Your task to perform on an android device: View the shopping cart on amazon. Add usb-a to usb-b to the cart on amazon, then select checkout. Image 0: 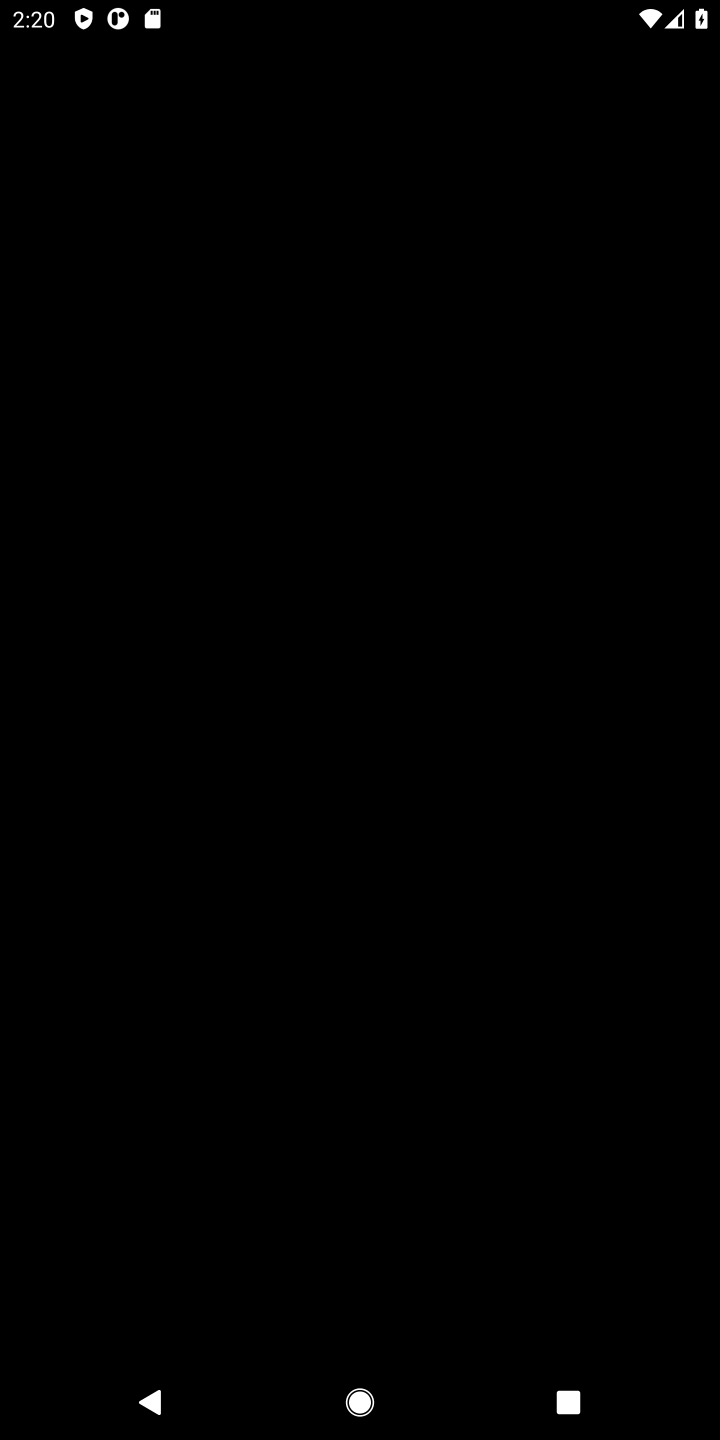
Step 0: press home button
Your task to perform on an android device: View the shopping cart on amazon. Add usb-a to usb-b to the cart on amazon, then select checkout. Image 1: 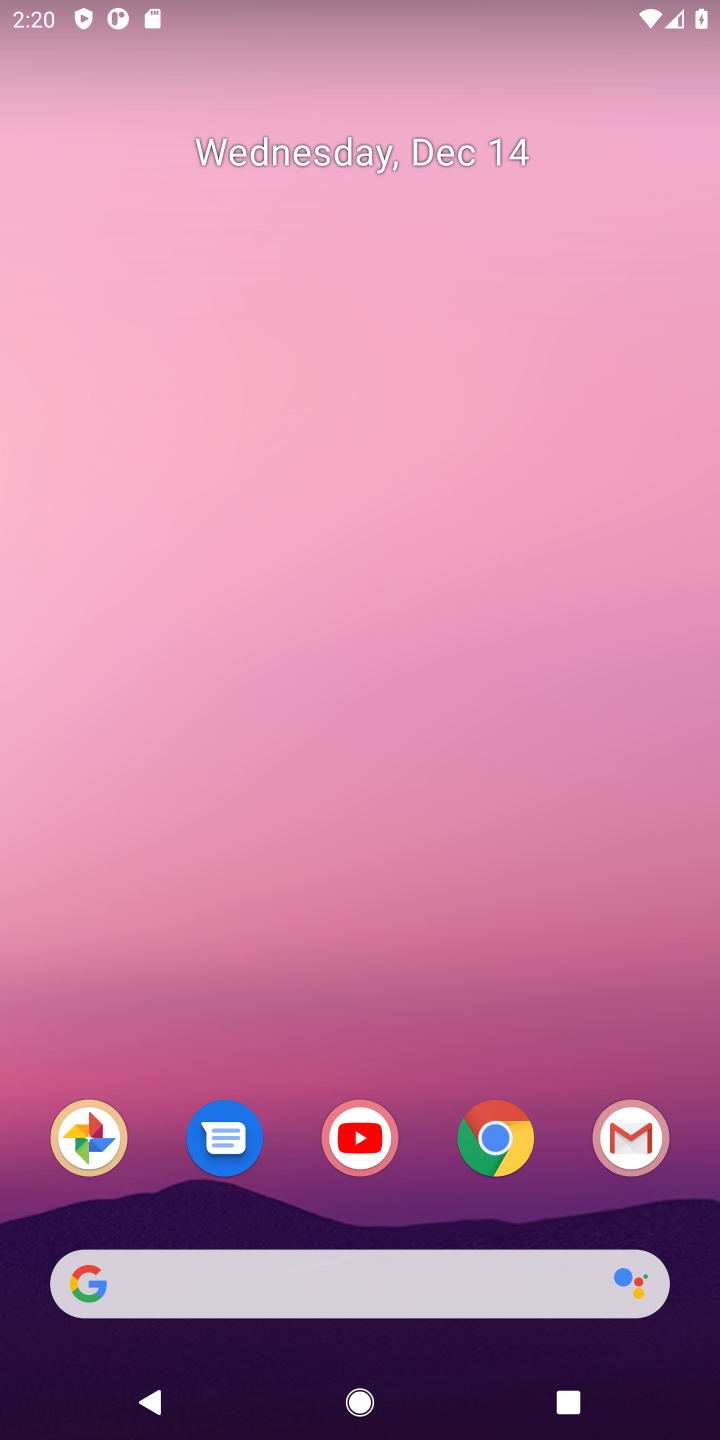
Step 1: click (483, 1149)
Your task to perform on an android device: View the shopping cart on amazon. Add usb-a to usb-b to the cart on amazon, then select checkout. Image 2: 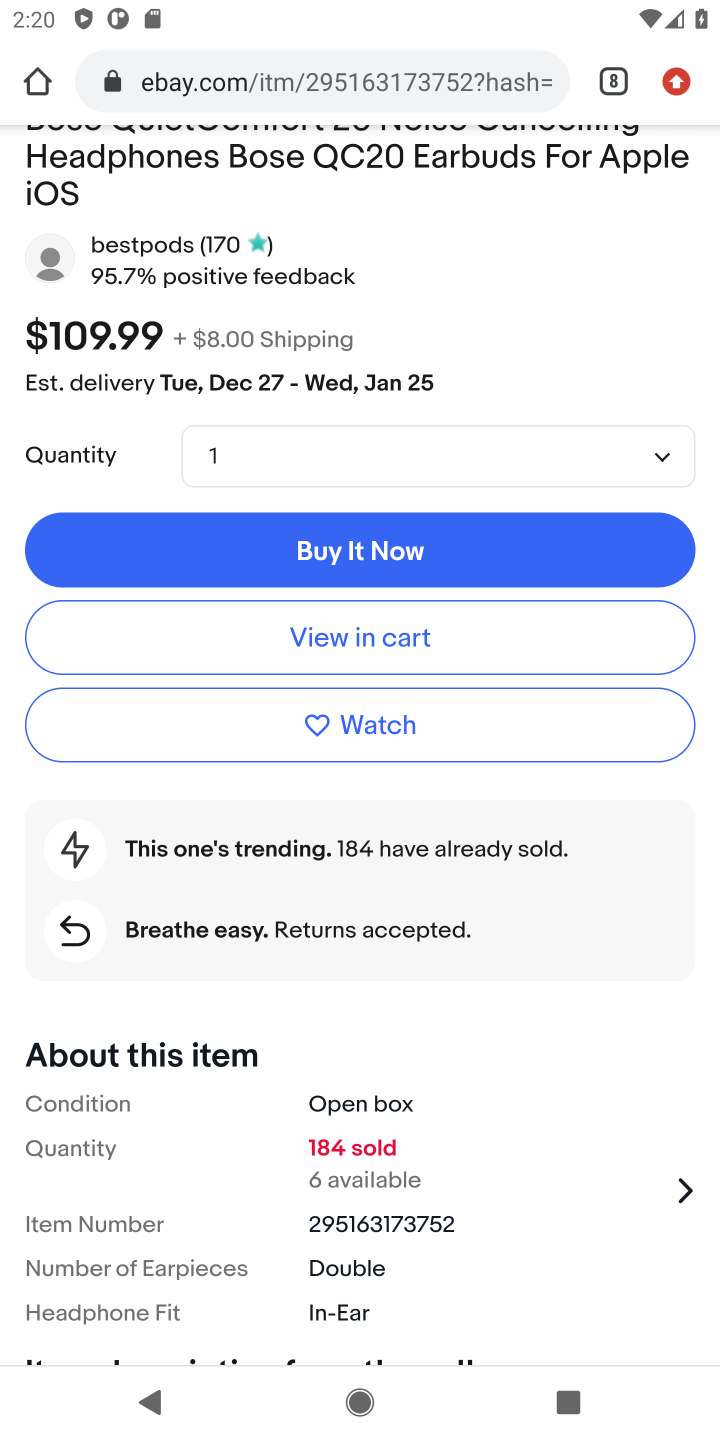
Step 2: click (614, 87)
Your task to perform on an android device: View the shopping cart on amazon. Add usb-a to usb-b to the cart on amazon, then select checkout. Image 3: 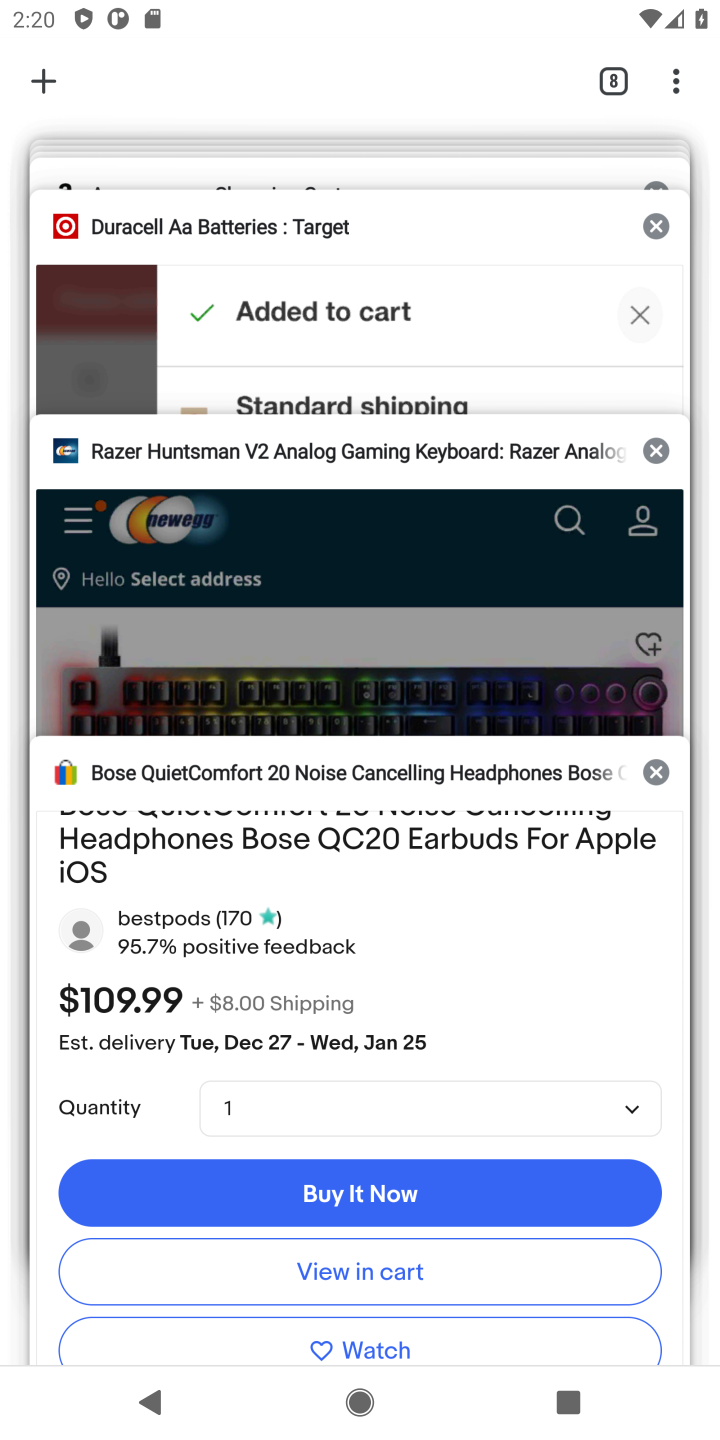
Step 3: drag from (283, 173) to (189, 918)
Your task to perform on an android device: View the shopping cart on amazon. Add usb-a to usb-b to the cart on amazon, then select checkout. Image 4: 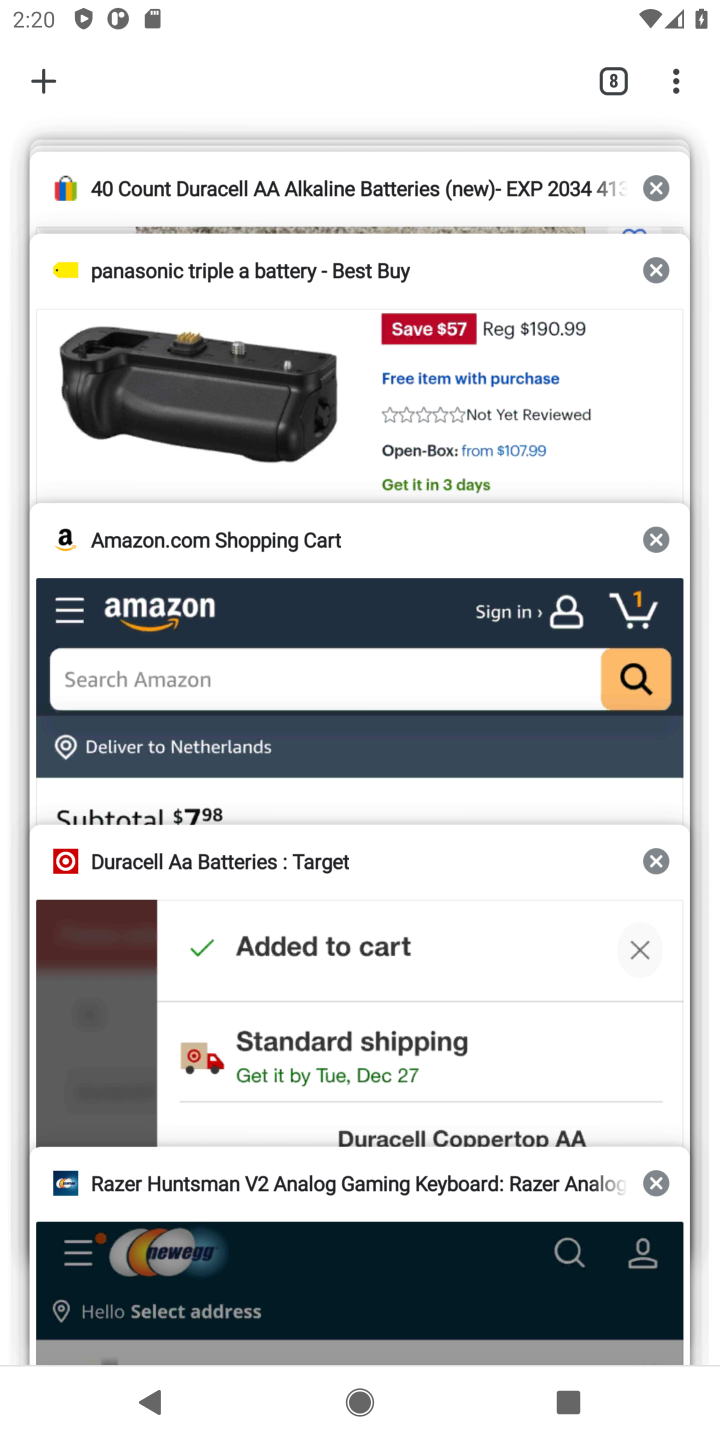
Step 4: click (214, 610)
Your task to perform on an android device: View the shopping cart on amazon. Add usb-a to usb-b to the cart on amazon, then select checkout. Image 5: 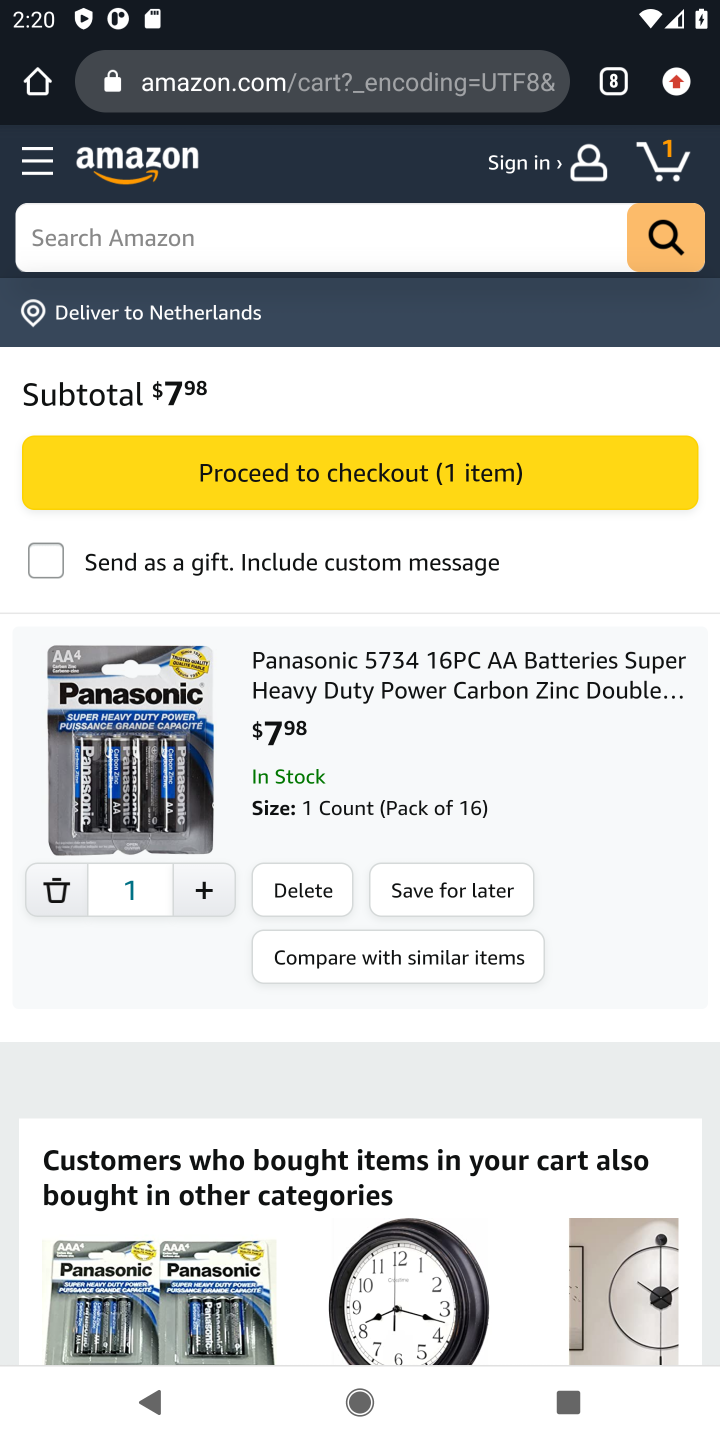
Step 5: click (145, 240)
Your task to perform on an android device: View the shopping cart on amazon. Add usb-a to usb-b to the cart on amazon, then select checkout. Image 6: 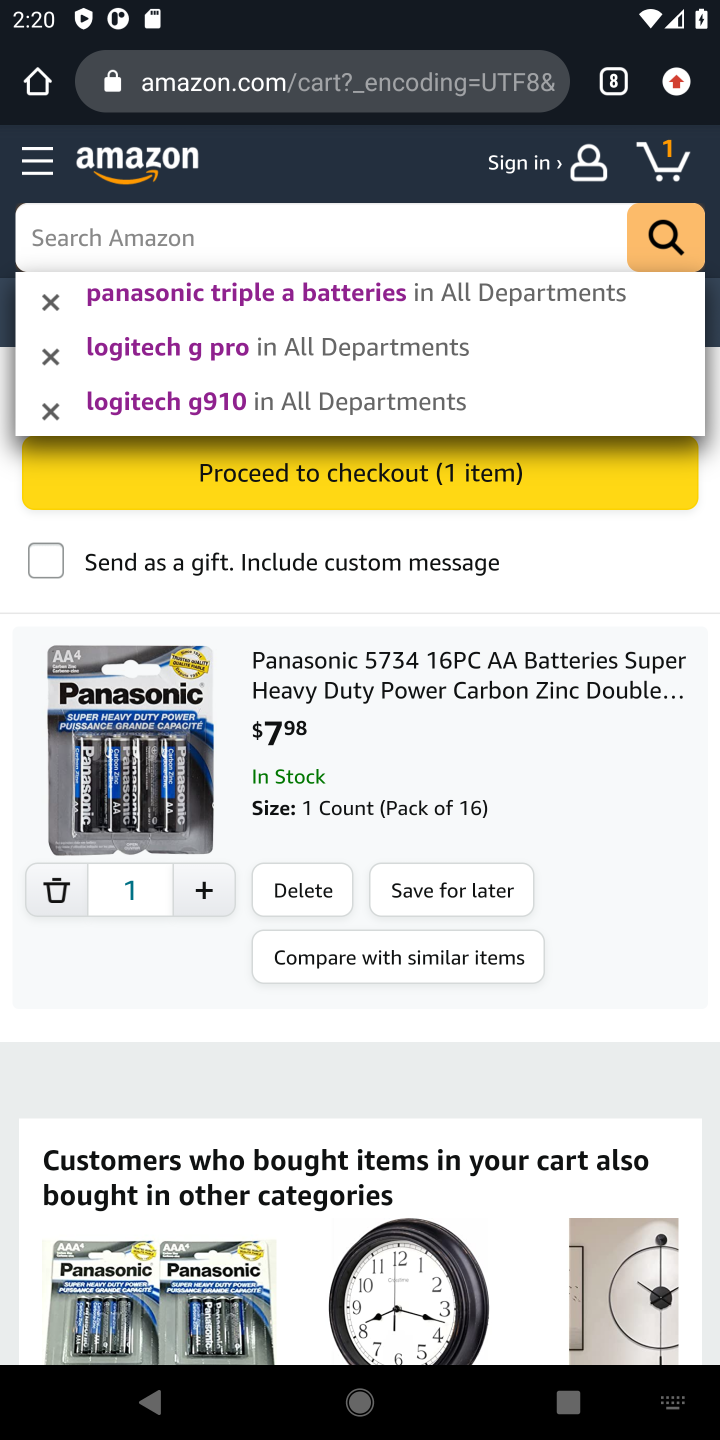
Step 6: type "usb-a to usb-b"
Your task to perform on an android device: View the shopping cart on amazon. Add usb-a to usb-b to the cart on amazon, then select checkout. Image 7: 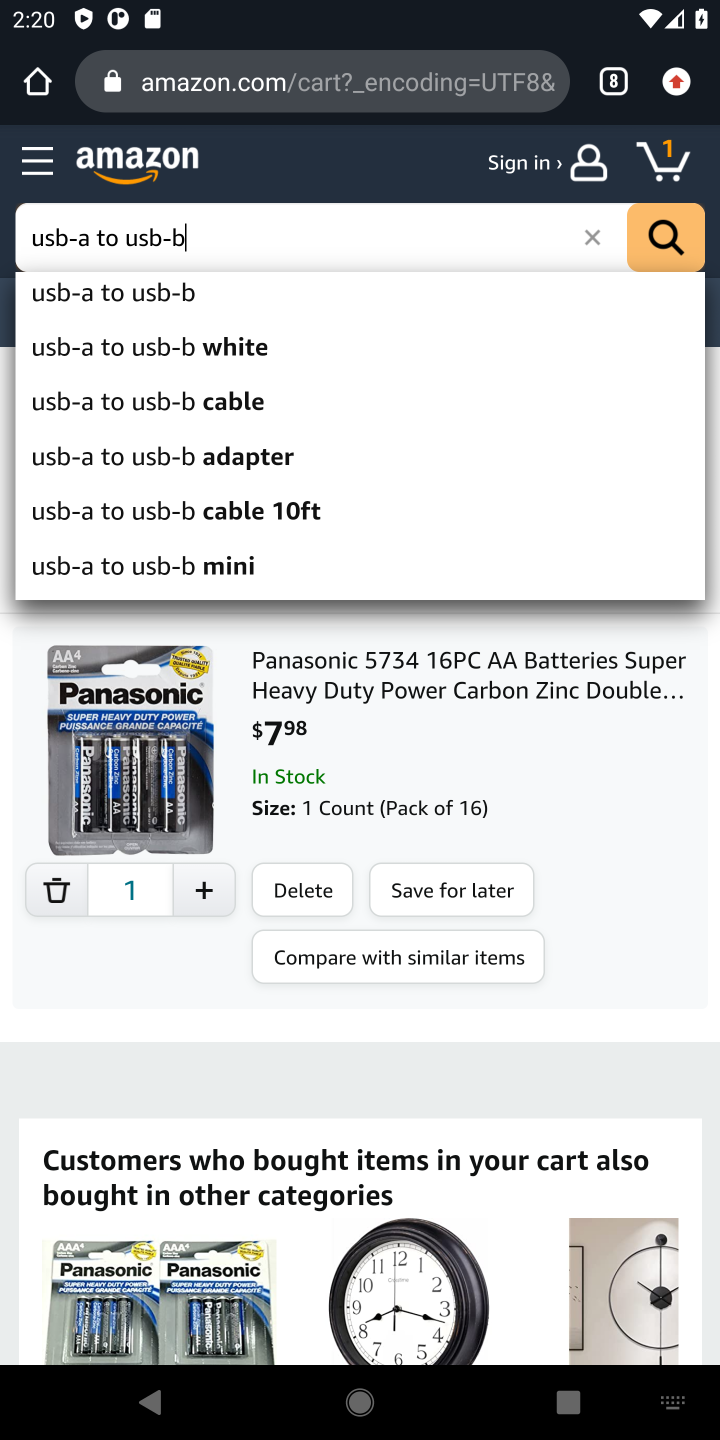
Step 7: click (150, 286)
Your task to perform on an android device: View the shopping cart on amazon. Add usb-a to usb-b to the cart on amazon, then select checkout. Image 8: 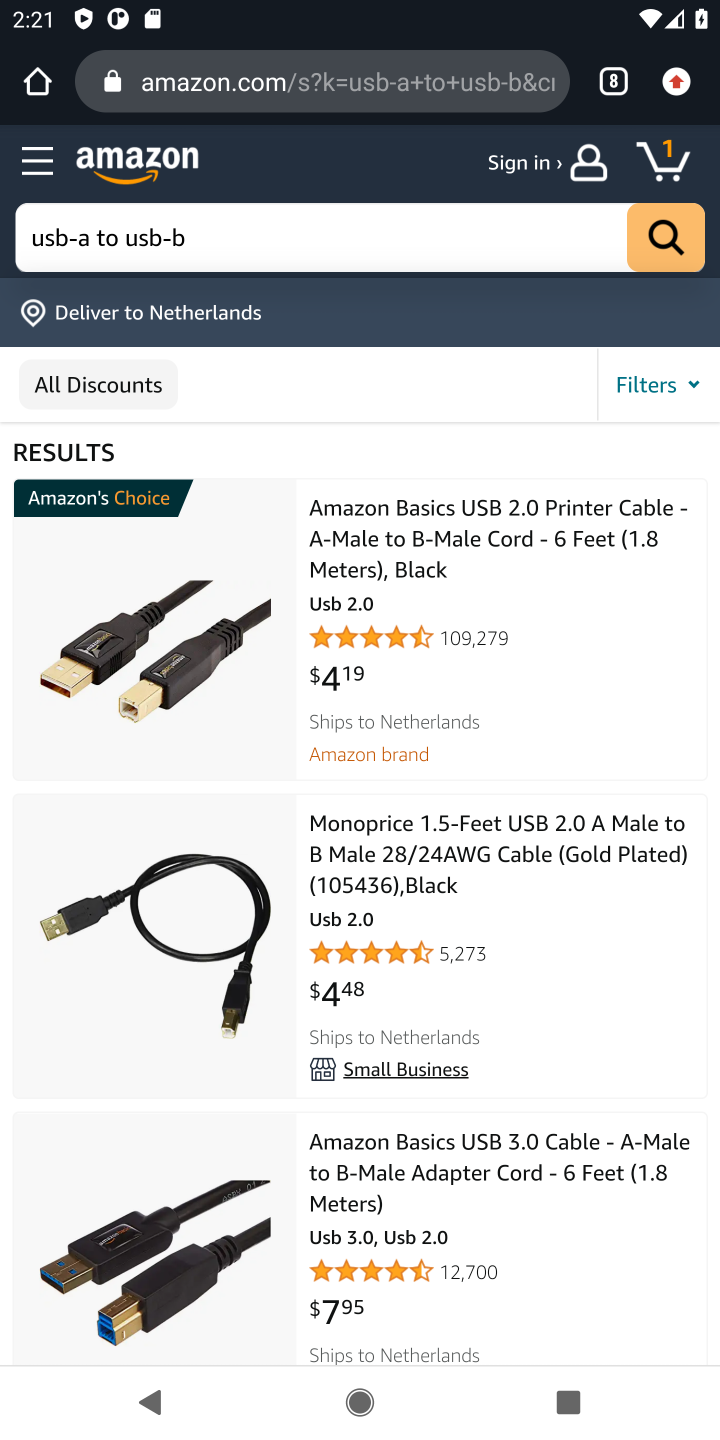
Step 8: click (358, 565)
Your task to perform on an android device: View the shopping cart on amazon. Add usb-a to usb-b to the cart on amazon, then select checkout. Image 9: 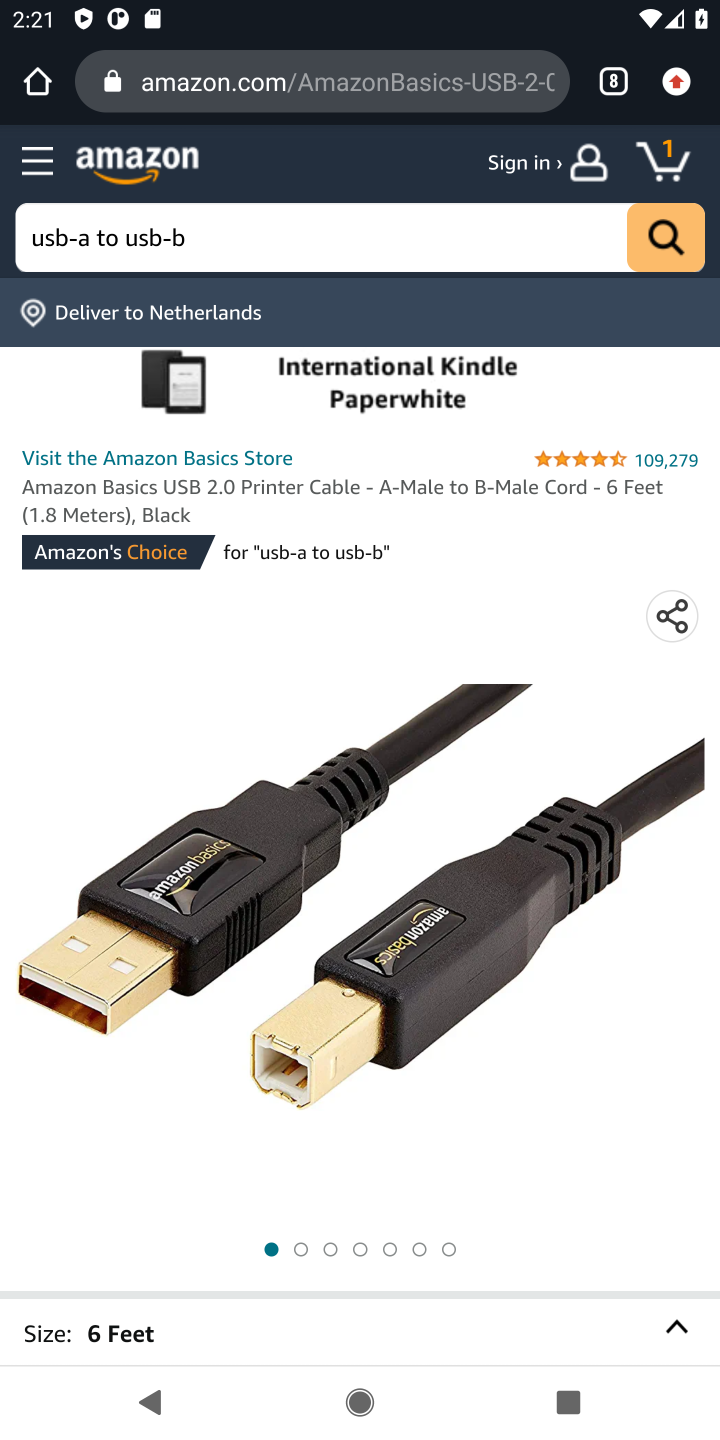
Step 9: drag from (444, 1273) to (542, 541)
Your task to perform on an android device: View the shopping cart on amazon. Add usb-a to usb-b to the cart on amazon, then select checkout. Image 10: 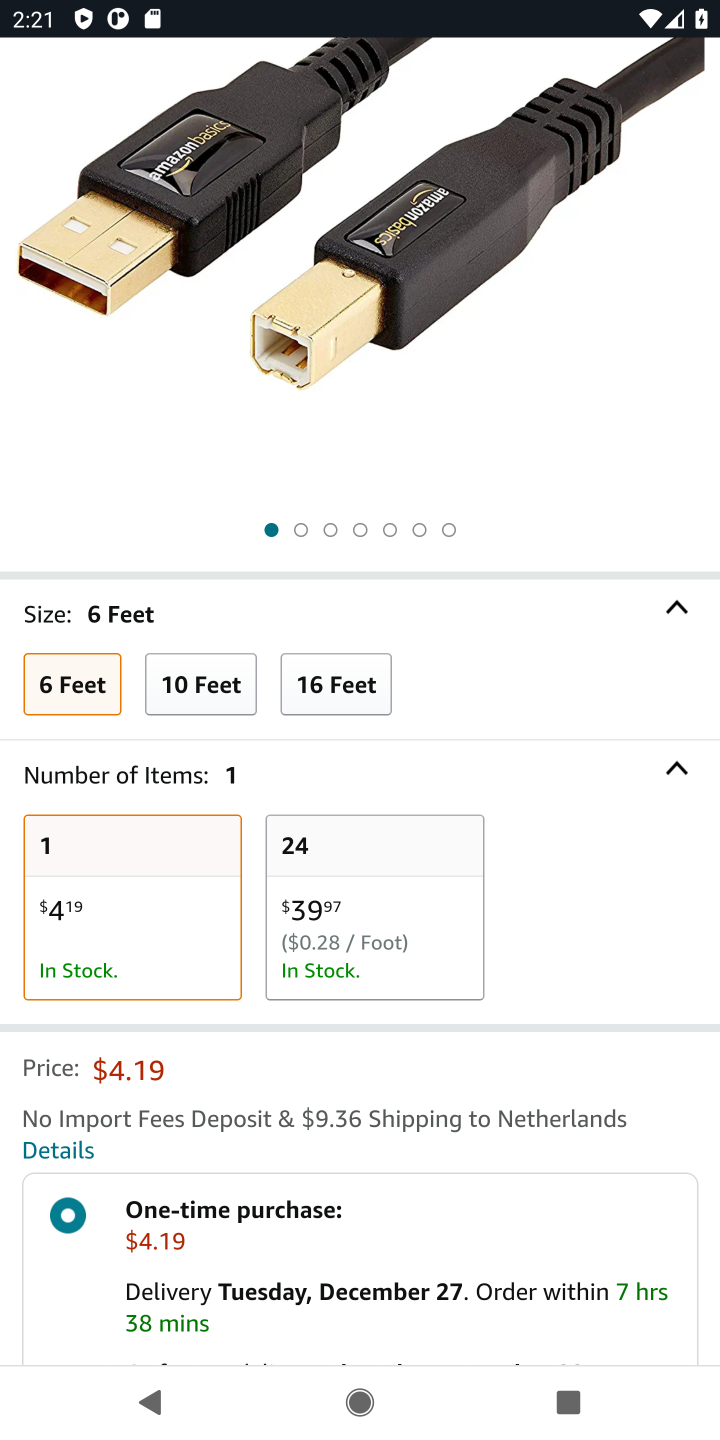
Step 10: drag from (370, 1169) to (578, 451)
Your task to perform on an android device: View the shopping cart on amazon. Add usb-a to usb-b to the cart on amazon, then select checkout. Image 11: 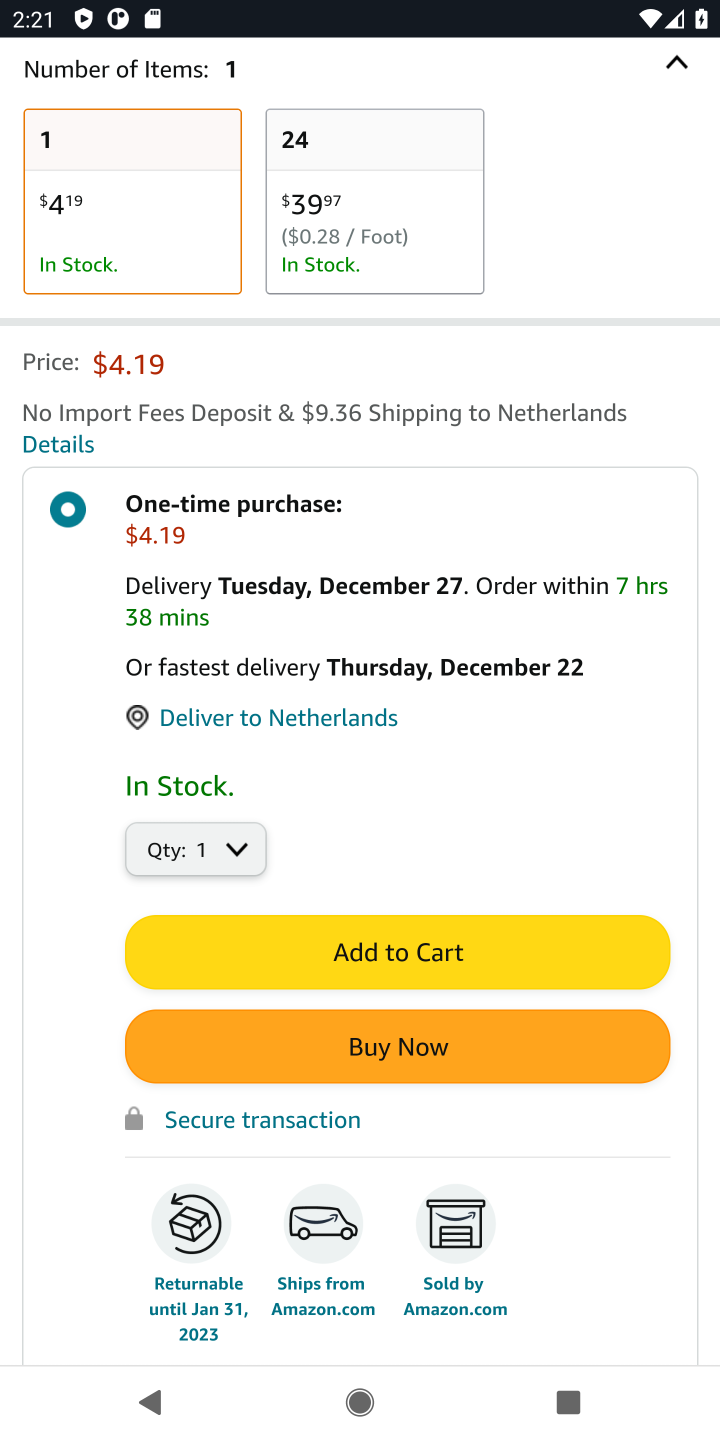
Step 11: click (290, 955)
Your task to perform on an android device: View the shopping cart on amazon. Add usb-a to usb-b to the cart on amazon, then select checkout. Image 12: 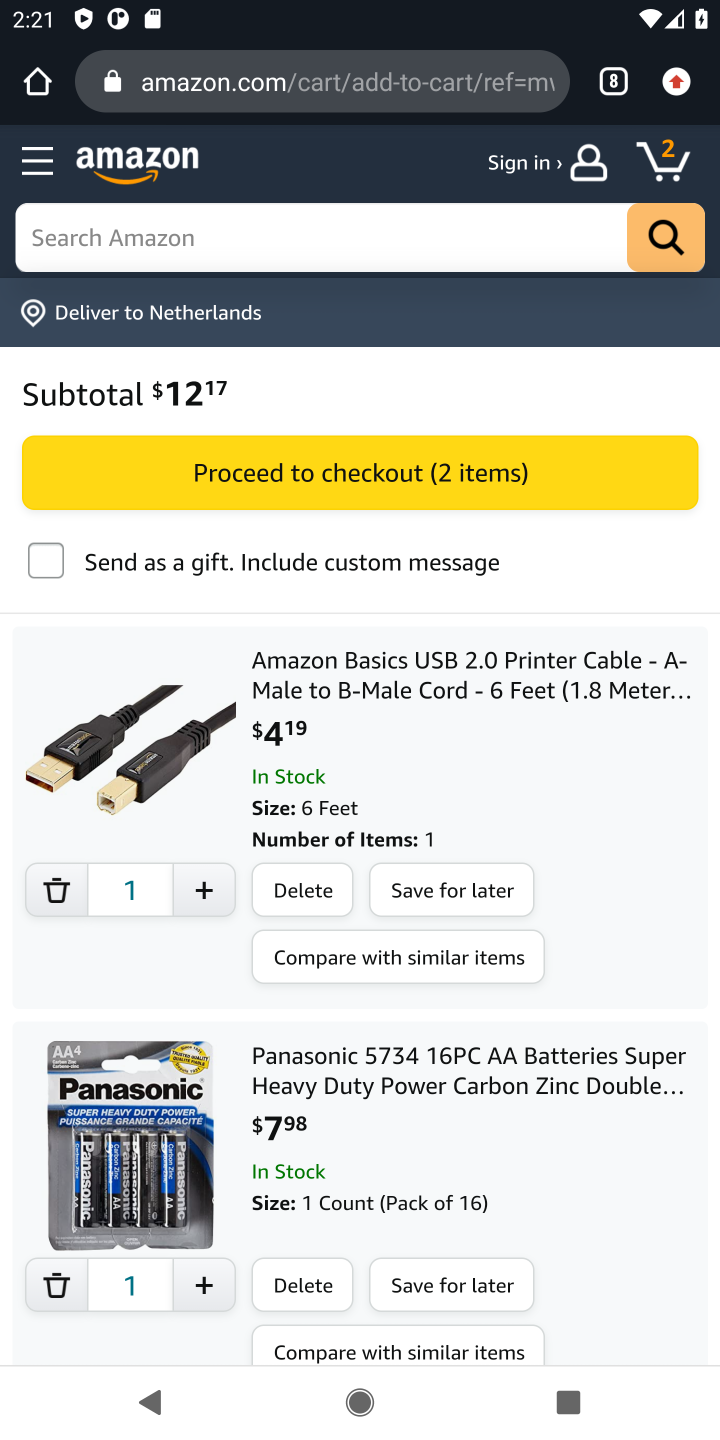
Step 12: task complete